Your task to perform on an android device: Go to privacy settings Image 0: 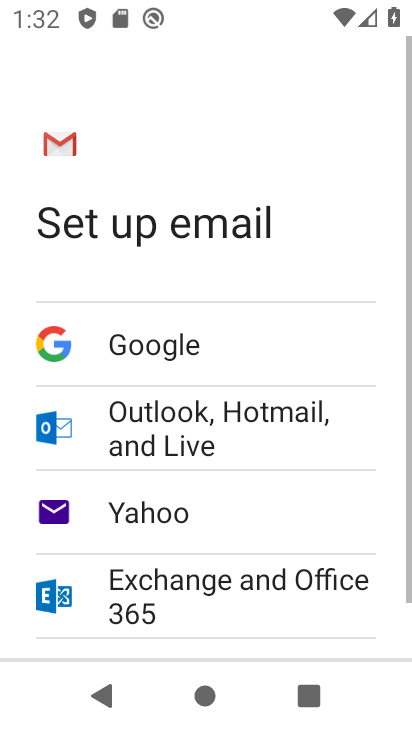
Step 0: press home button
Your task to perform on an android device: Go to privacy settings Image 1: 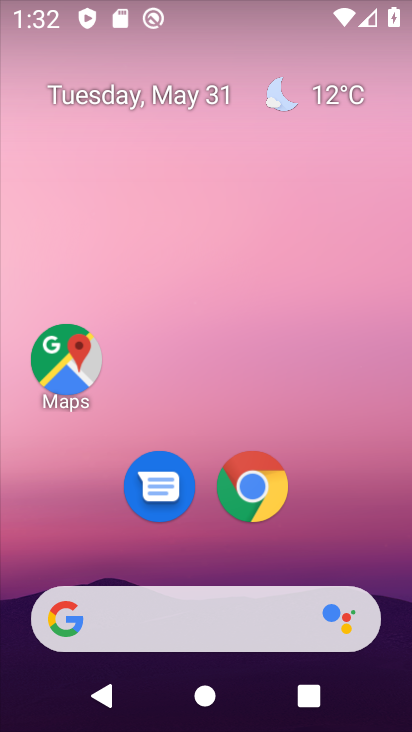
Step 1: drag from (219, 563) to (214, 133)
Your task to perform on an android device: Go to privacy settings Image 2: 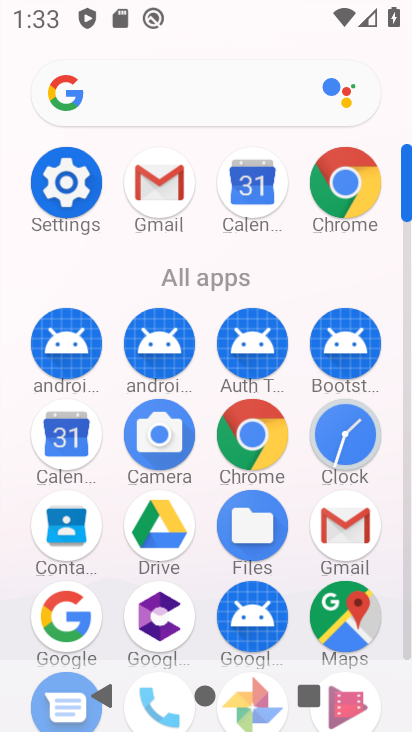
Step 2: click (67, 184)
Your task to perform on an android device: Go to privacy settings Image 3: 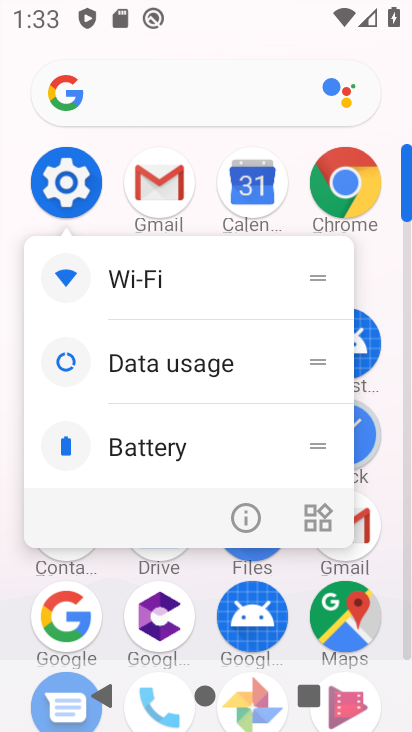
Step 3: click (68, 196)
Your task to perform on an android device: Go to privacy settings Image 4: 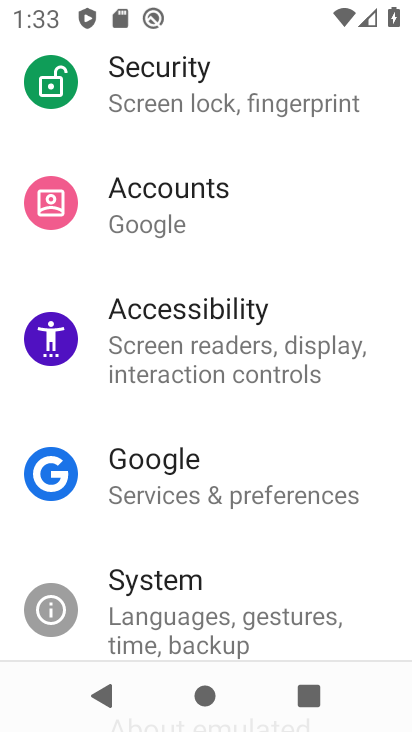
Step 4: drag from (185, 596) to (202, 307)
Your task to perform on an android device: Go to privacy settings Image 5: 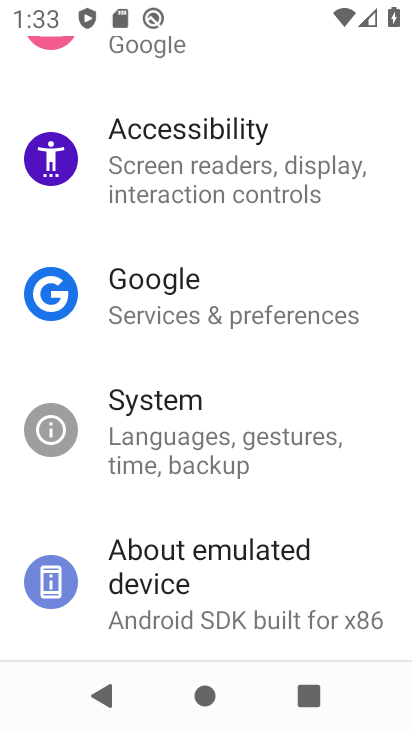
Step 5: drag from (197, 269) to (192, 681)
Your task to perform on an android device: Go to privacy settings Image 6: 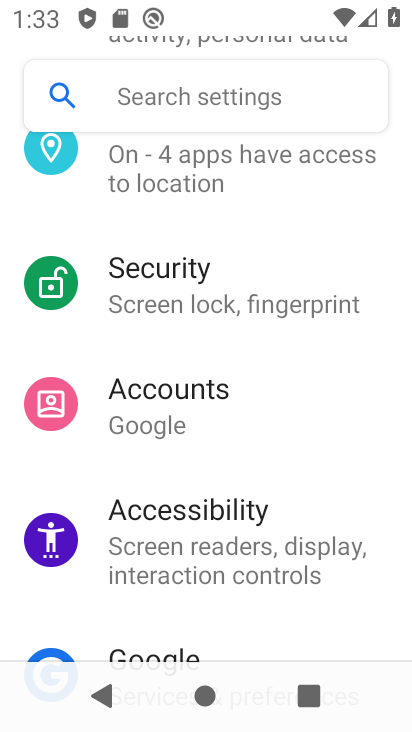
Step 6: drag from (191, 318) to (187, 571)
Your task to perform on an android device: Go to privacy settings Image 7: 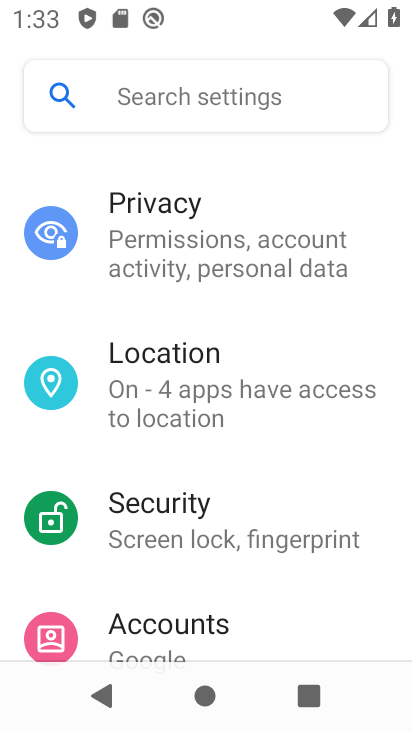
Step 7: click (200, 193)
Your task to perform on an android device: Go to privacy settings Image 8: 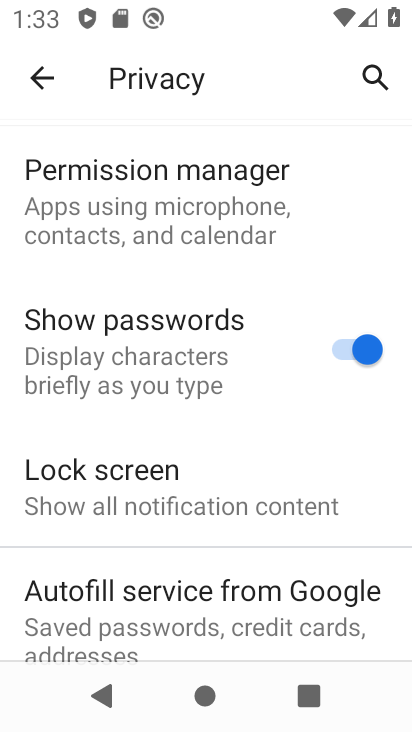
Step 8: task complete